Your task to perform on an android device: check android version Image 0: 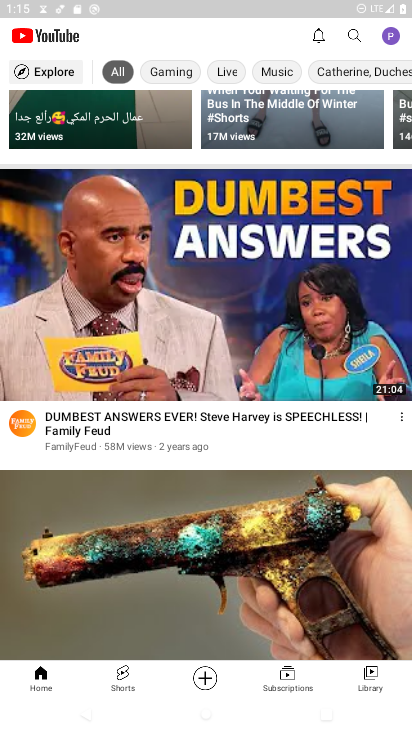
Step 0: press home button
Your task to perform on an android device: check android version Image 1: 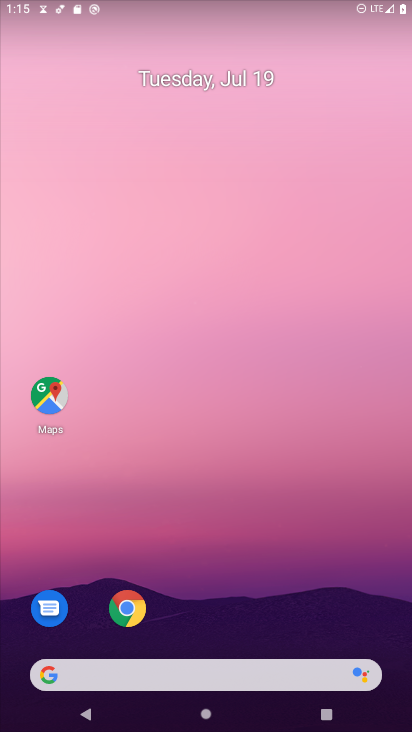
Step 1: drag from (252, 681) to (320, 50)
Your task to perform on an android device: check android version Image 2: 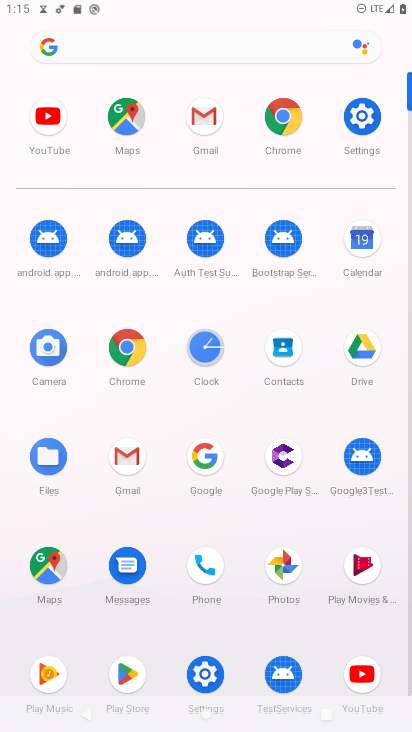
Step 2: click (131, 344)
Your task to perform on an android device: check android version Image 3: 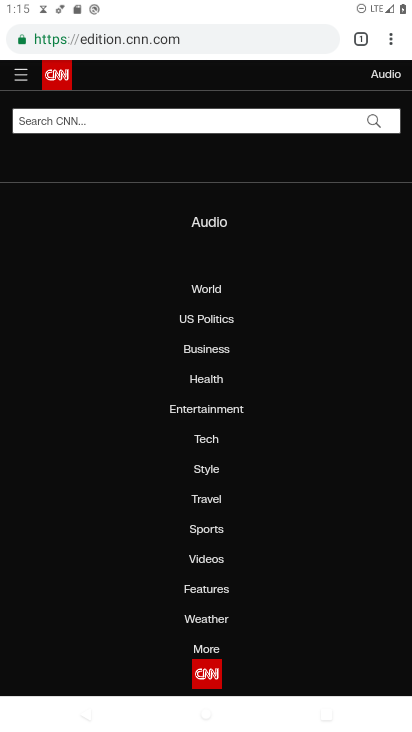
Step 3: drag from (382, 31) to (255, 475)
Your task to perform on an android device: check android version Image 4: 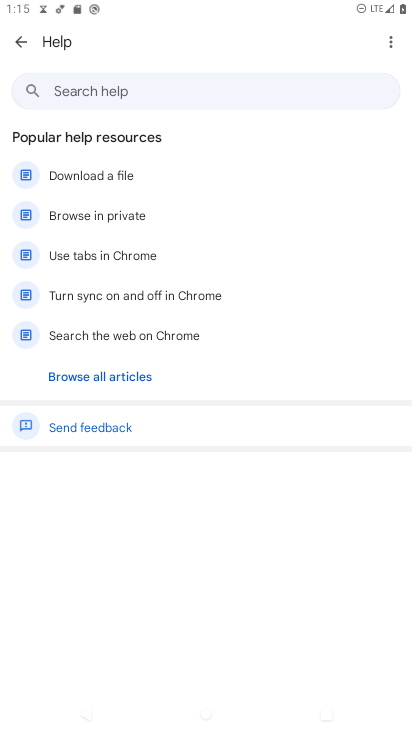
Step 4: click (393, 42)
Your task to perform on an android device: check android version Image 5: 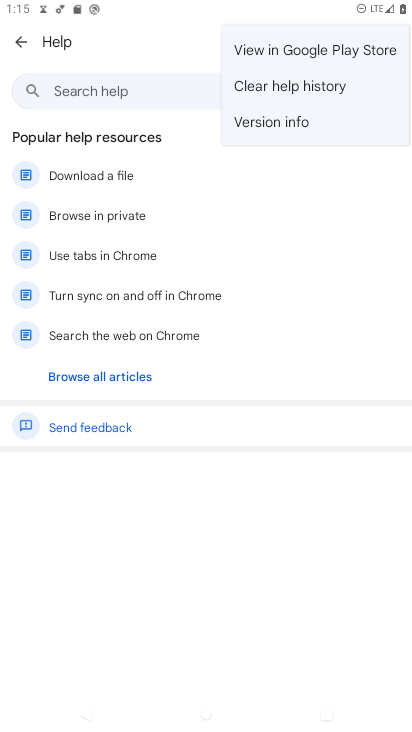
Step 5: click (263, 124)
Your task to perform on an android device: check android version Image 6: 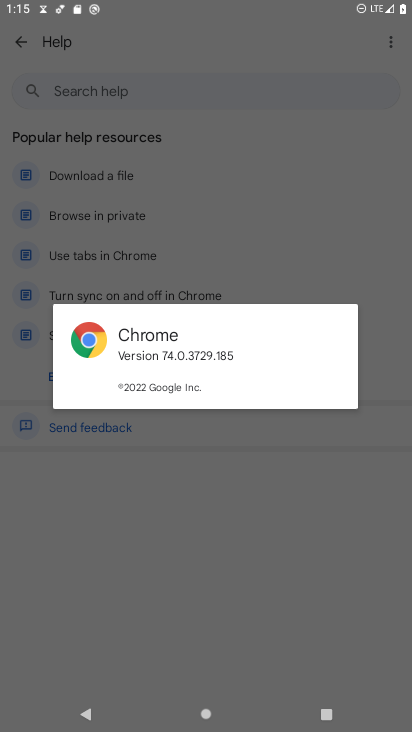
Step 6: task complete